Your task to perform on an android device: toggle airplane mode Image 0: 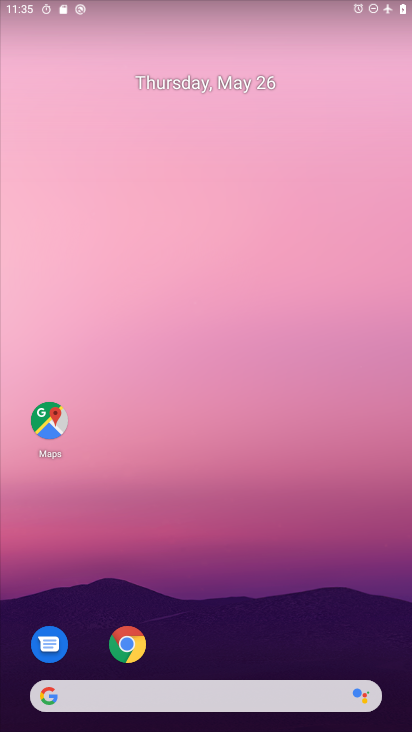
Step 0: drag from (348, 407) to (344, 22)
Your task to perform on an android device: toggle airplane mode Image 1: 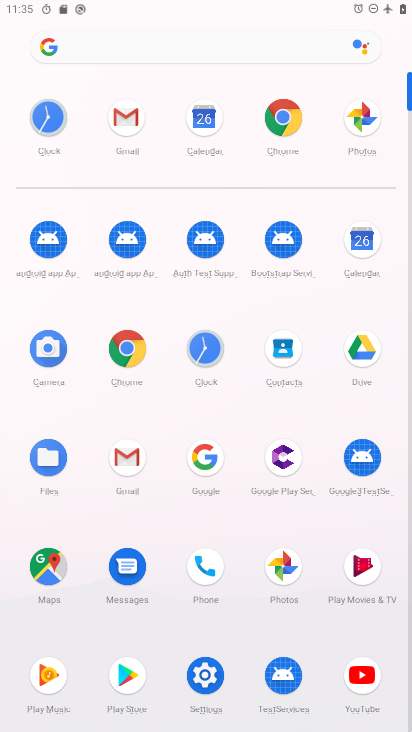
Step 1: click (215, 678)
Your task to perform on an android device: toggle airplane mode Image 2: 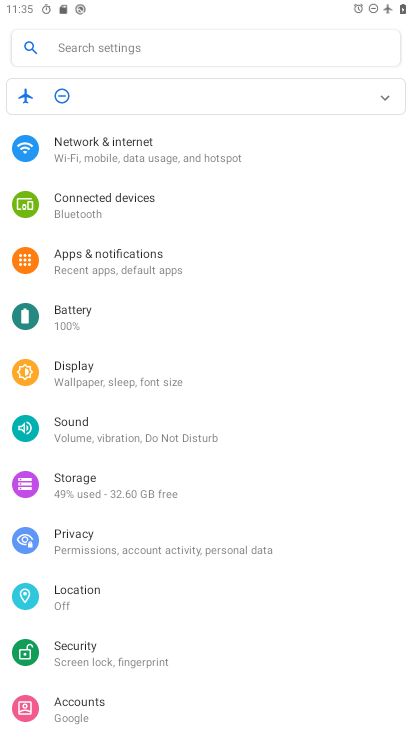
Step 2: click (169, 146)
Your task to perform on an android device: toggle airplane mode Image 3: 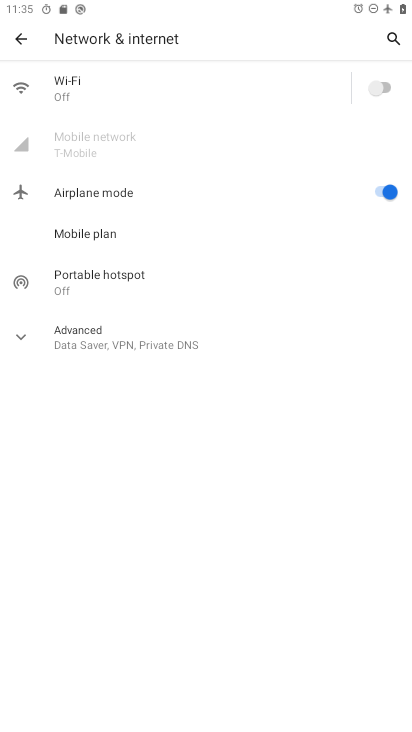
Step 3: click (382, 191)
Your task to perform on an android device: toggle airplane mode Image 4: 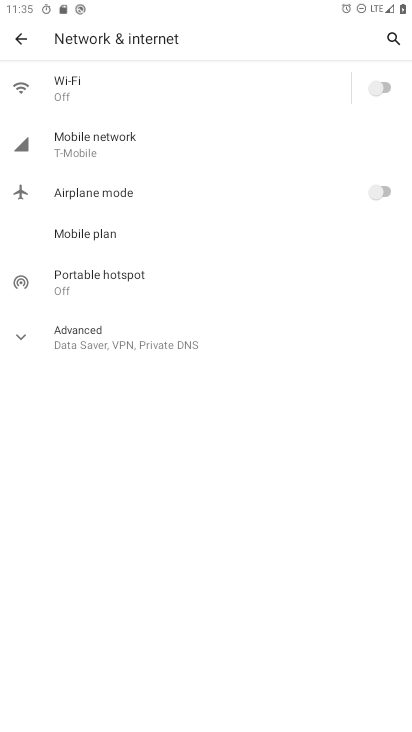
Step 4: task complete